Your task to perform on an android device: see creations saved in the google photos Image 0: 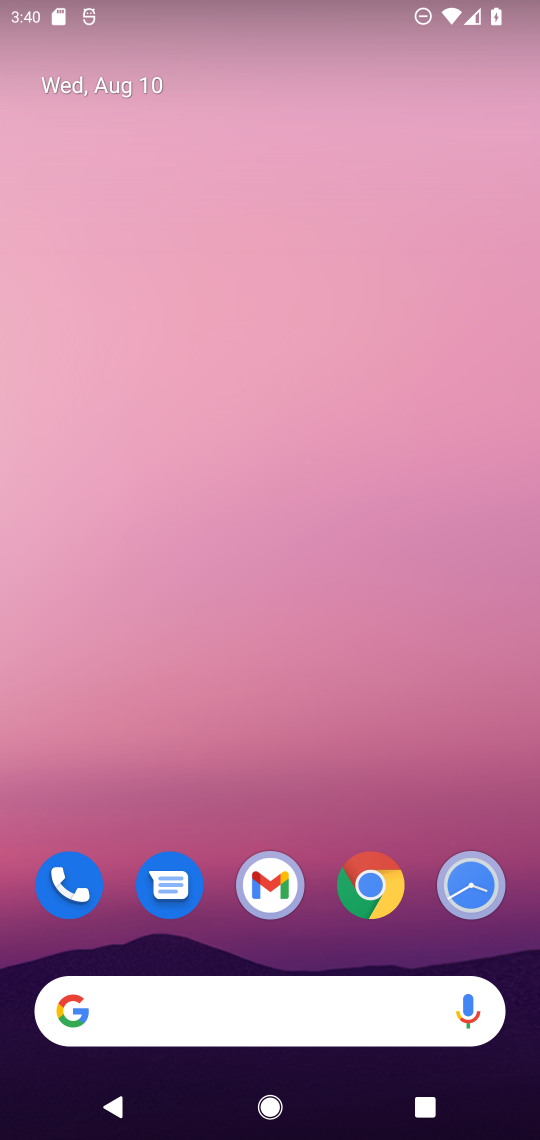
Step 0: drag from (322, 937) to (256, 60)
Your task to perform on an android device: see creations saved in the google photos Image 1: 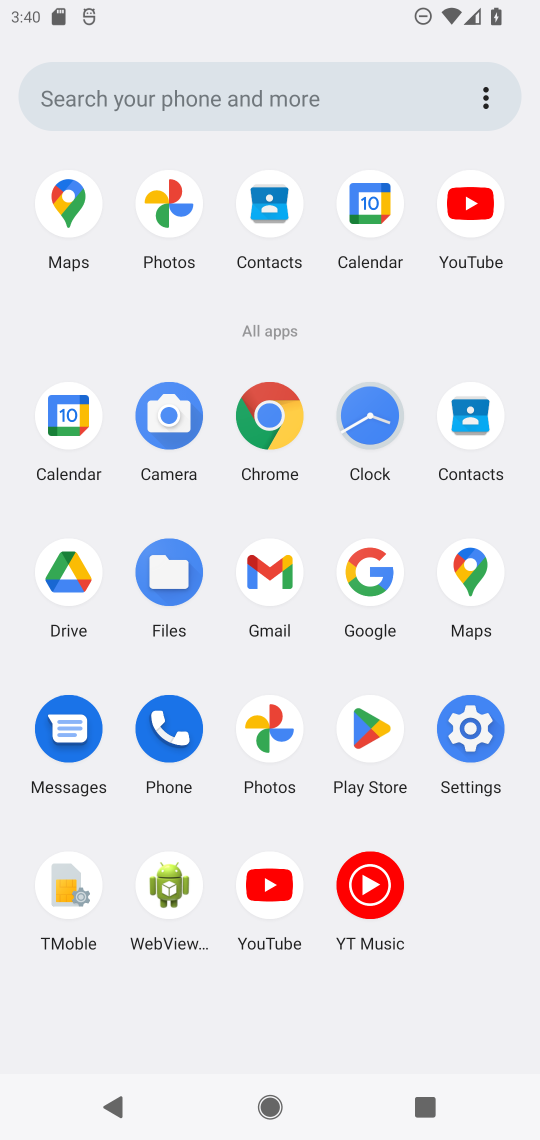
Step 1: click (168, 210)
Your task to perform on an android device: see creations saved in the google photos Image 2: 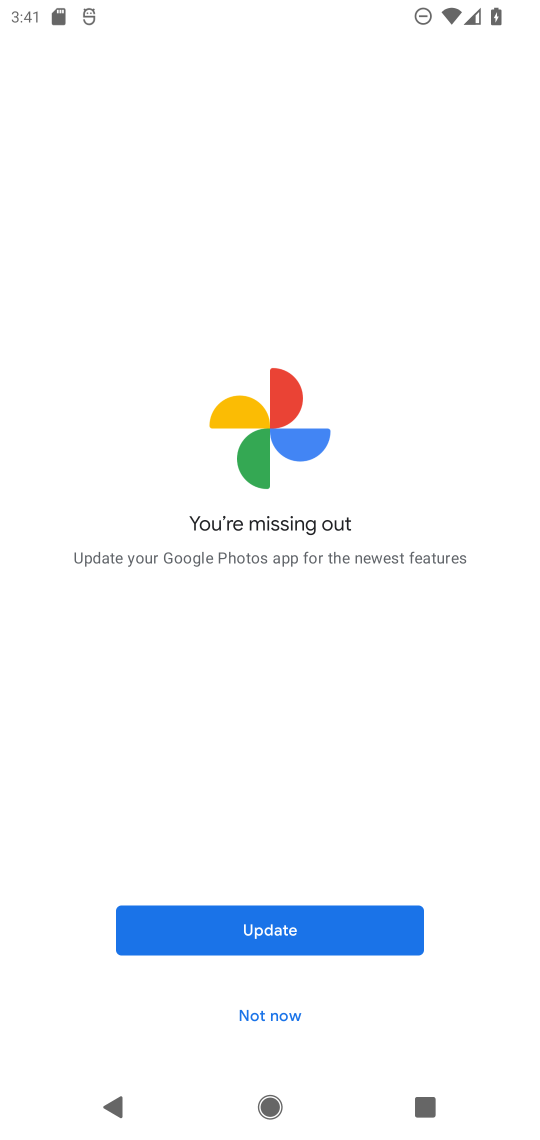
Step 2: click (293, 909)
Your task to perform on an android device: see creations saved in the google photos Image 3: 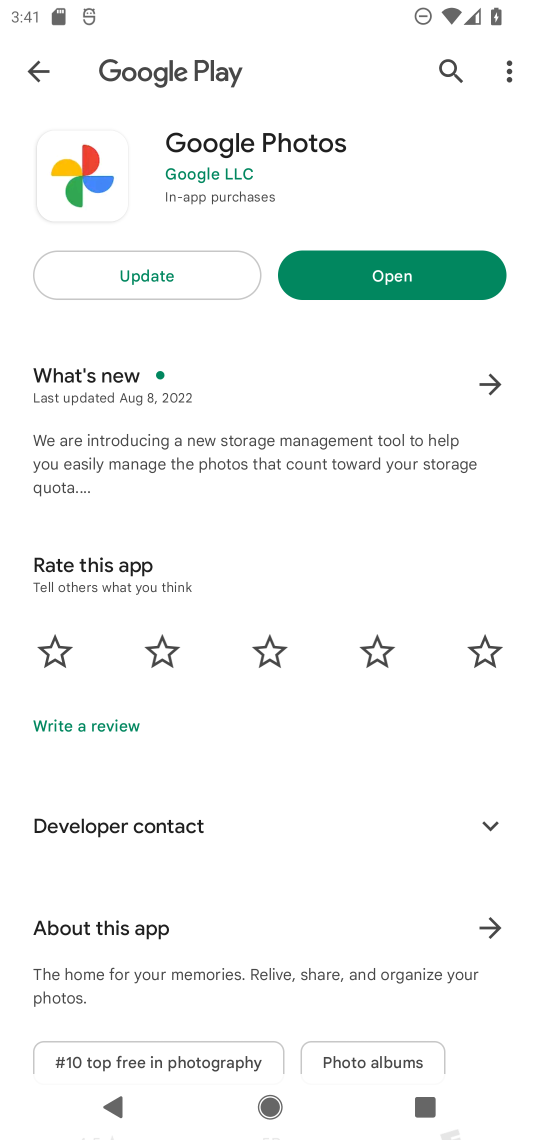
Step 3: click (131, 271)
Your task to perform on an android device: see creations saved in the google photos Image 4: 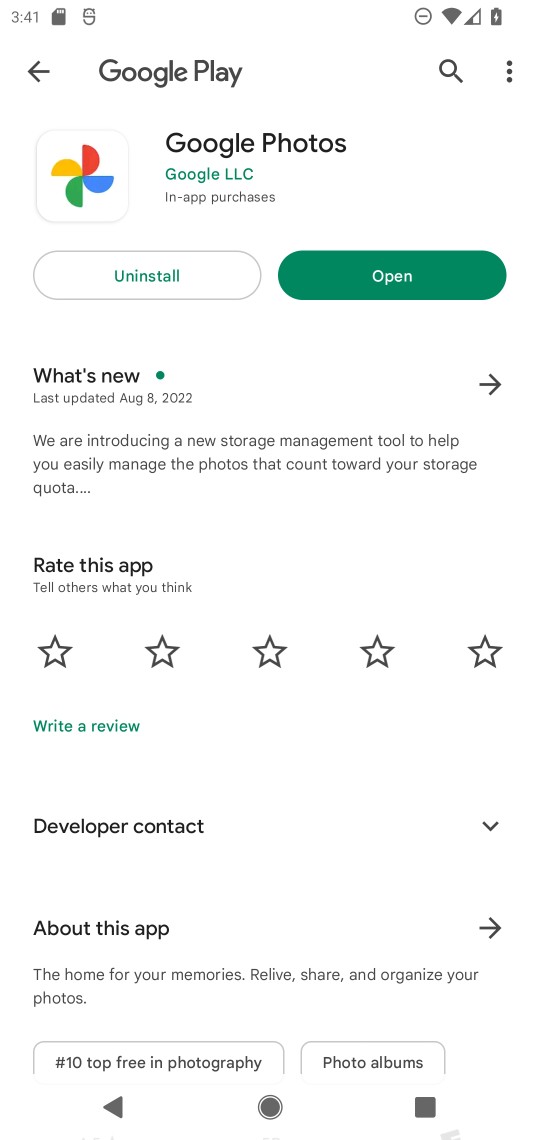
Step 4: click (374, 277)
Your task to perform on an android device: see creations saved in the google photos Image 5: 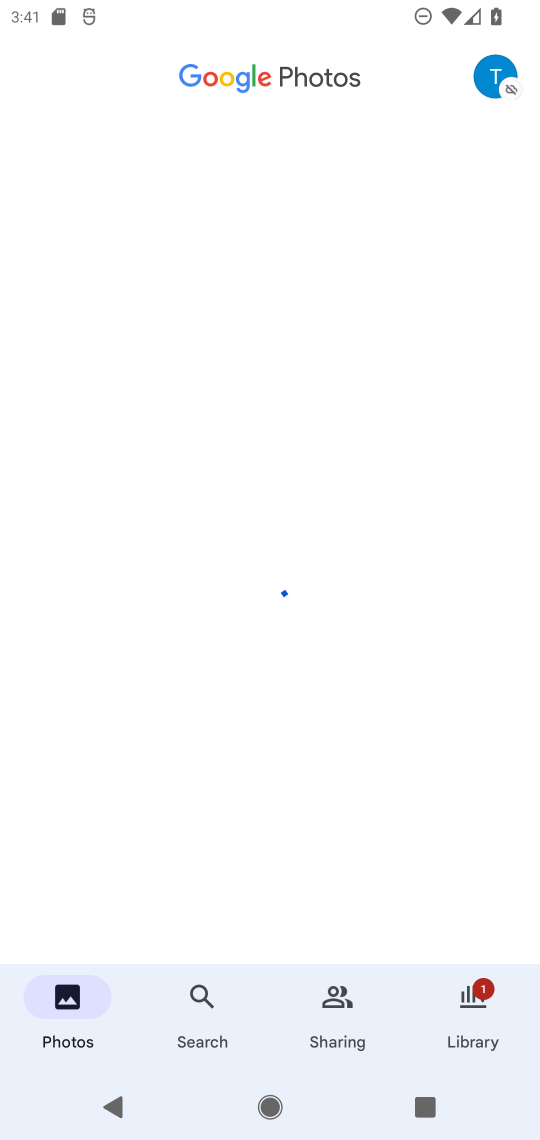
Step 5: click (201, 990)
Your task to perform on an android device: see creations saved in the google photos Image 6: 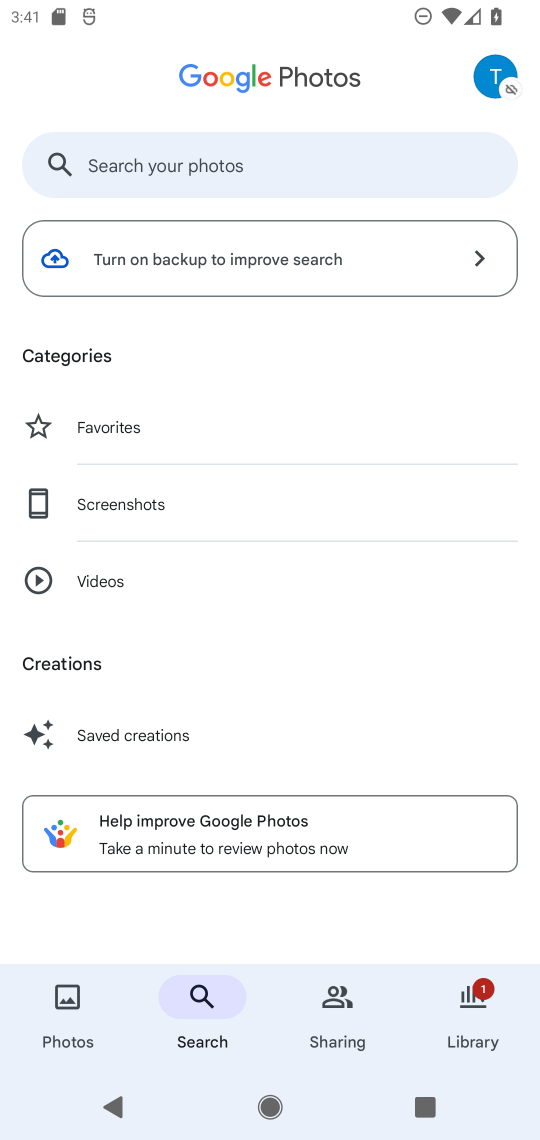
Step 6: click (206, 147)
Your task to perform on an android device: see creations saved in the google photos Image 7: 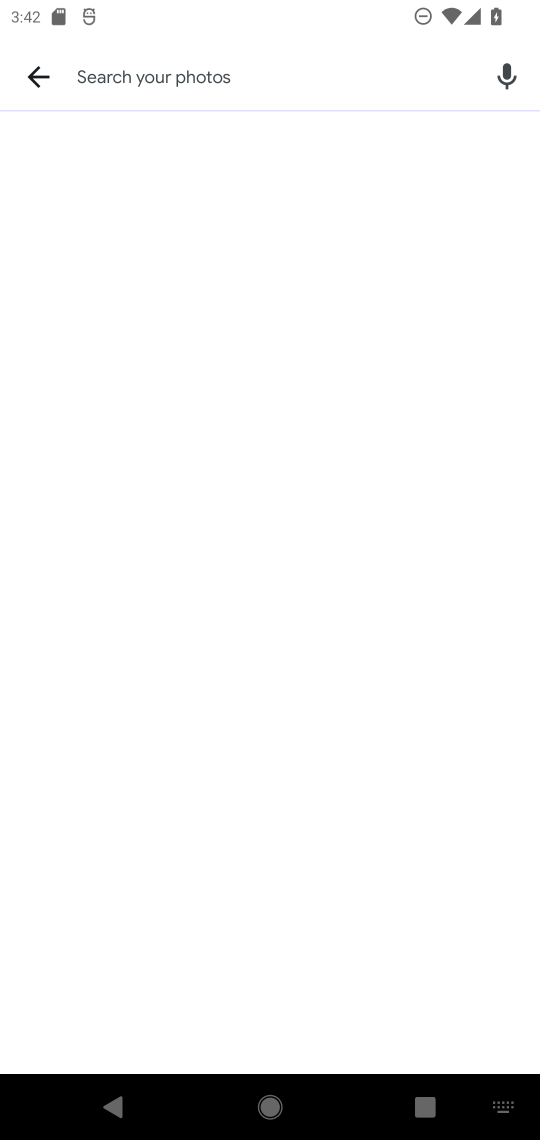
Step 7: type "creations"
Your task to perform on an android device: see creations saved in the google photos Image 8: 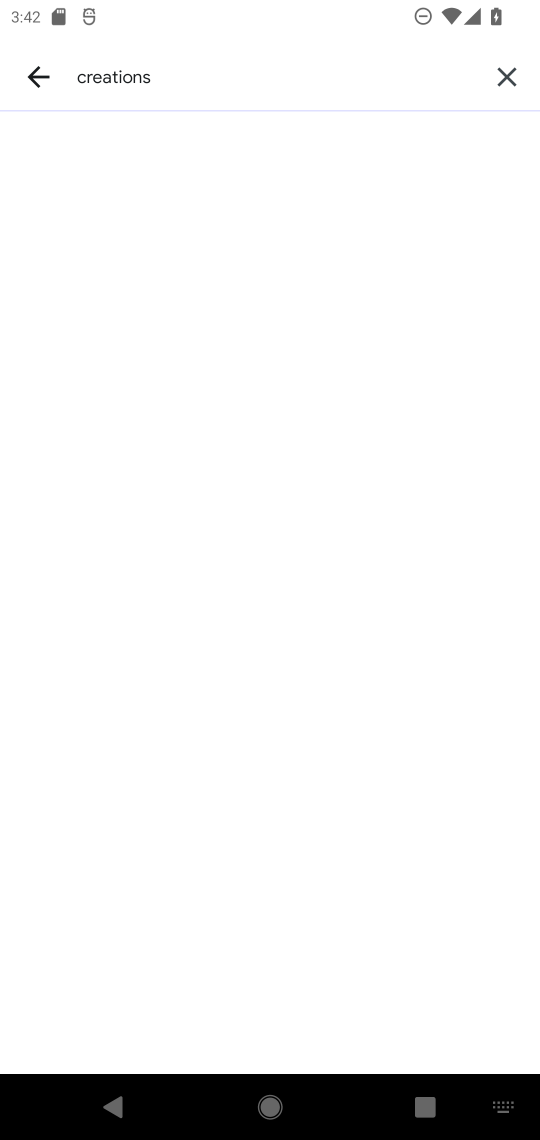
Step 8: task complete